Your task to perform on an android device: all mails in gmail Image 0: 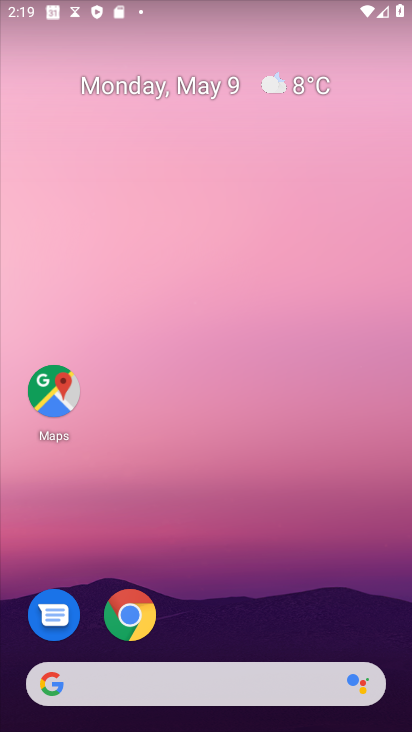
Step 0: drag from (229, 622) to (175, 125)
Your task to perform on an android device: all mails in gmail Image 1: 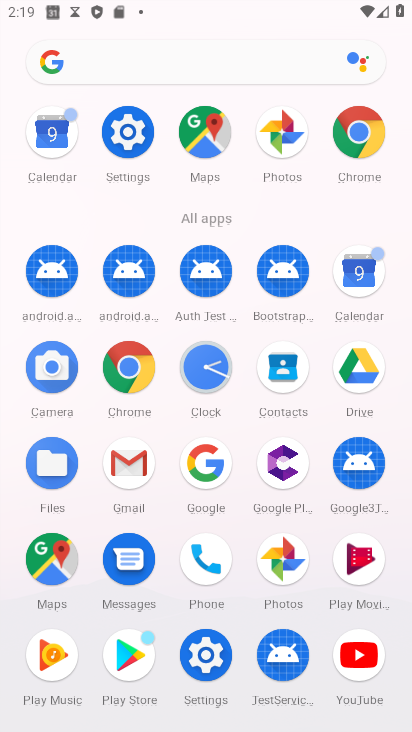
Step 1: click (131, 466)
Your task to perform on an android device: all mails in gmail Image 2: 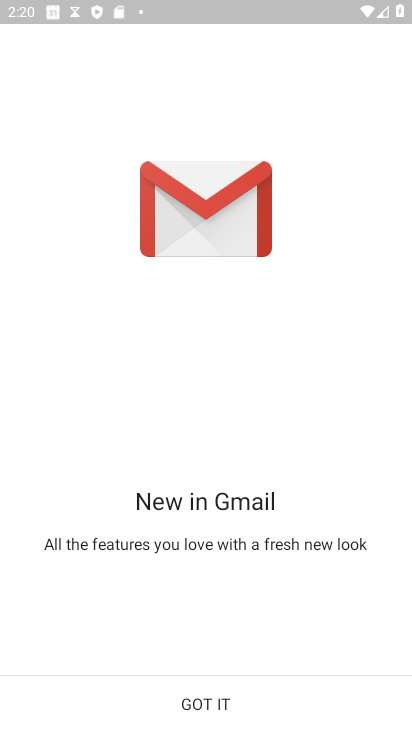
Step 2: click (218, 708)
Your task to perform on an android device: all mails in gmail Image 3: 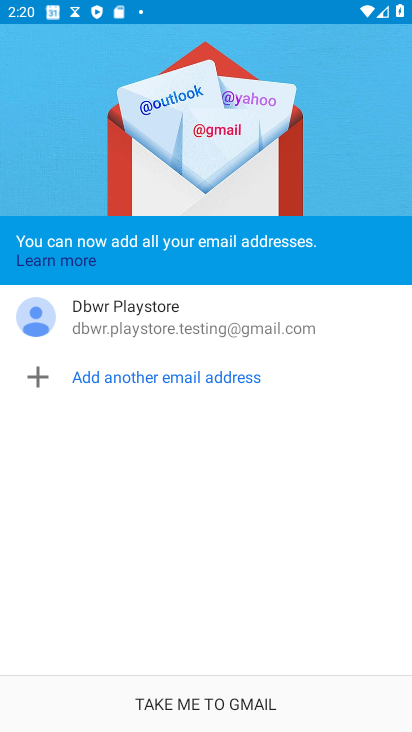
Step 3: click (222, 708)
Your task to perform on an android device: all mails in gmail Image 4: 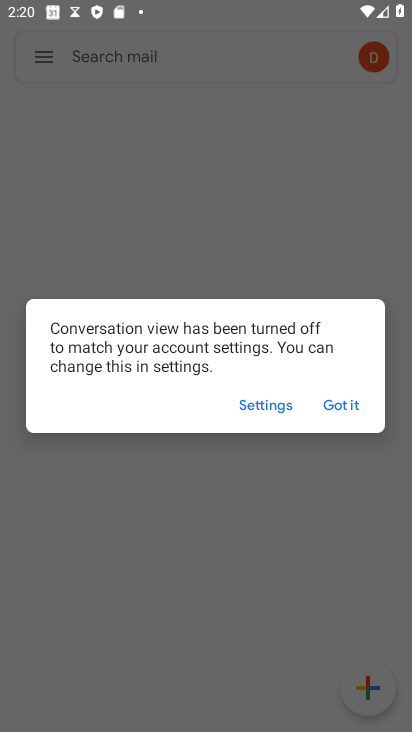
Step 4: click (339, 414)
Your task to perform on an android device: all mails in gmail Image 5: 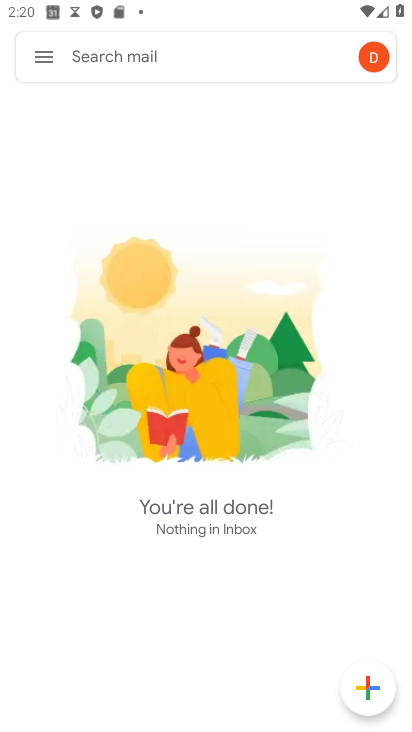
Step 5: click (45, 45)
Your task to perform on an android device: all mails in gmail Image 6: 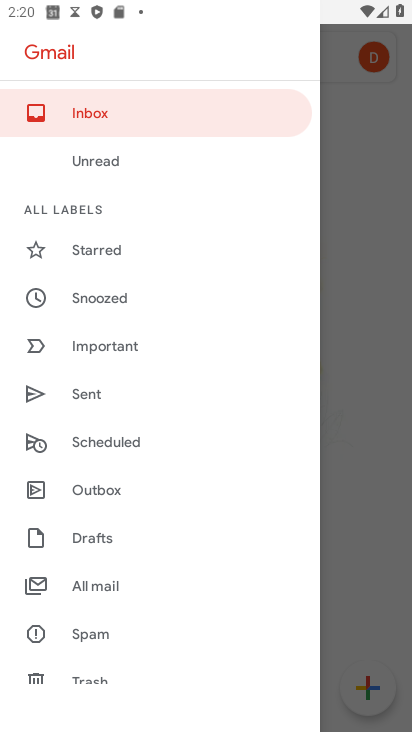
Step 6: click (115, 579)
Your task to perform on an android device: all mails in gmail Image 7: 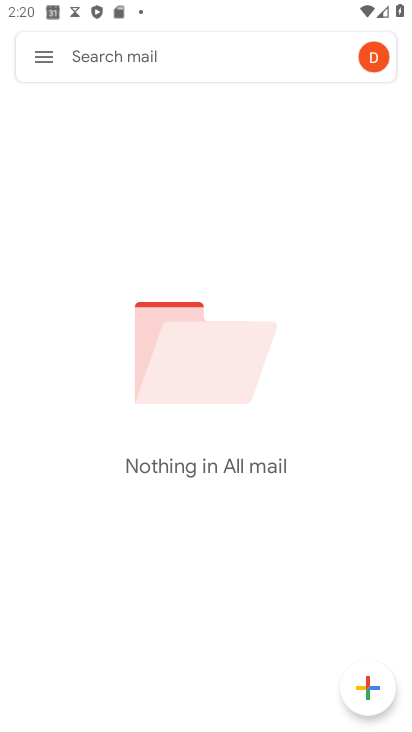
Step 7: task complete